Your task to perform on an android device: change notifications settings Image 0: 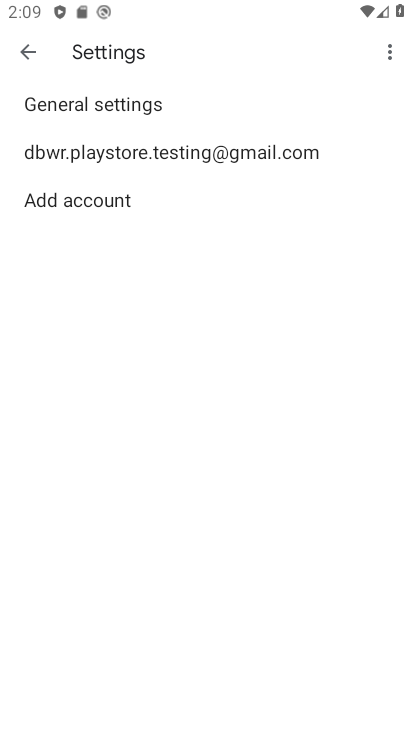
Step 0: press home button
Your task to perform on an android device: change notifications settings Image 1: 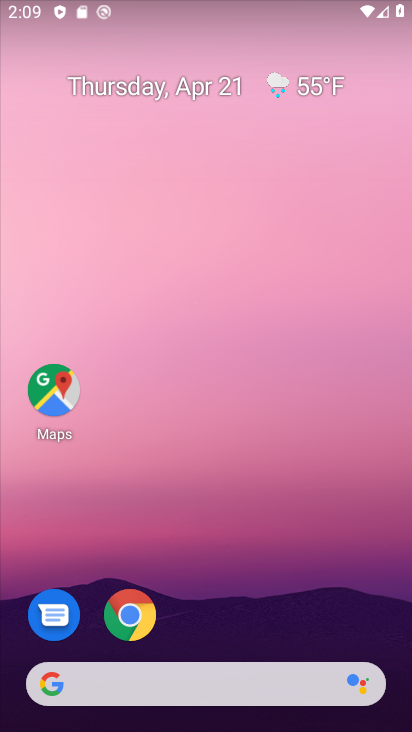
Step 1: drag from (180, 591) to (320, 13)
Your task to perform on an android device: change notifications settings Image 2: 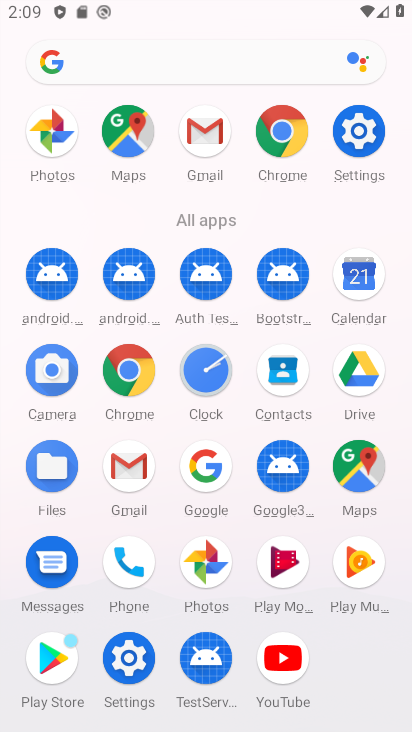
Step 2: click (365, 145)
Your task to perform on an android device: change notifications settings Image 3: 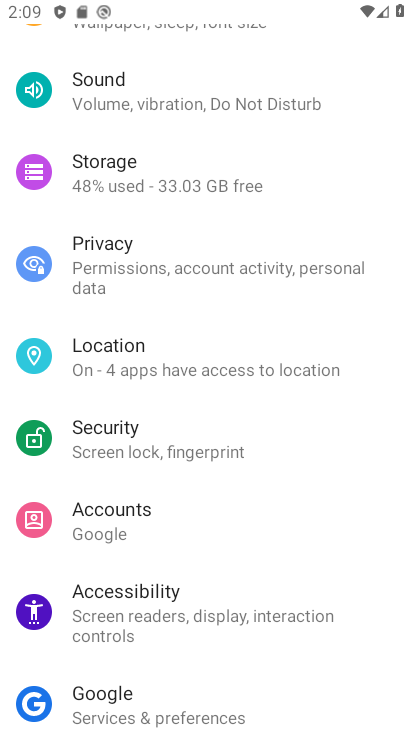
Step 3: drag from (177, 147) to (188, 534)
Your task to perform on an android device: change notifications settings Image 4: 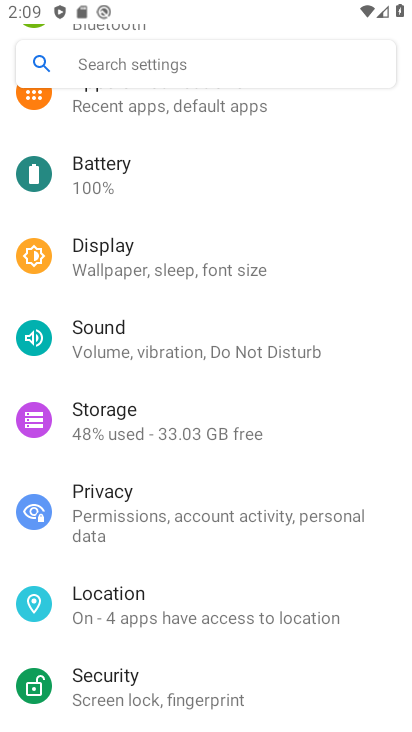
Step 4: drag from (184, 178) to (171, 466)
Your task to perform on an android device: change notifications settings Image 5: 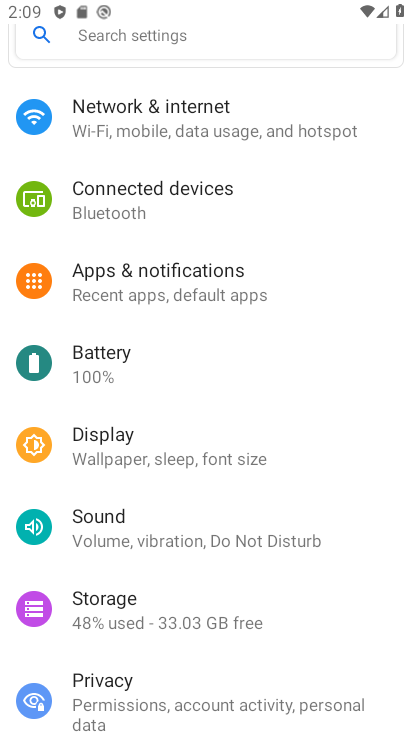
Step 5: click (149, 293)
Your task to perform on an android device: change notifications settings Image 6: 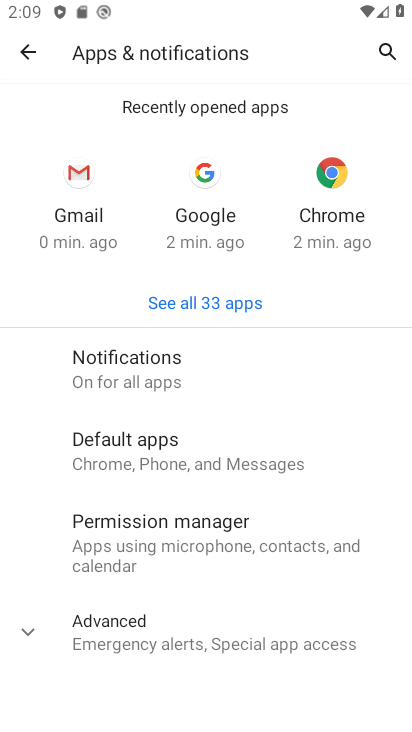
Step 6: click (153, 370)
Your task to perform on an android device: change notifications settings Image 7: 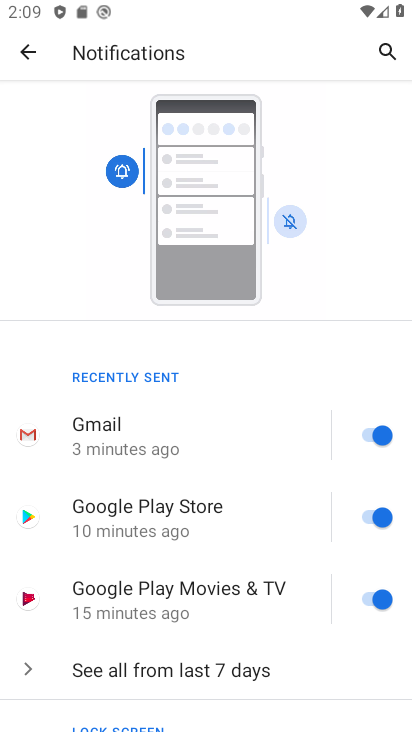
Step 7: click (364, 434)
Your task to perform on an android device: change notifications settings Image 8: 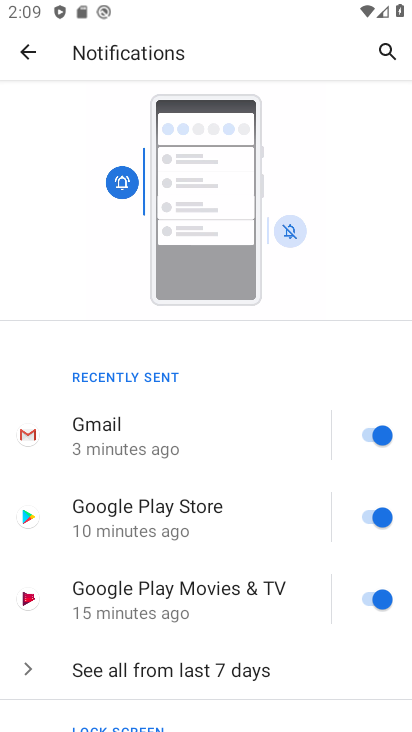
Step 8: click (364, 513)
Your task to perform on an android device: change notifications settings Image 9: 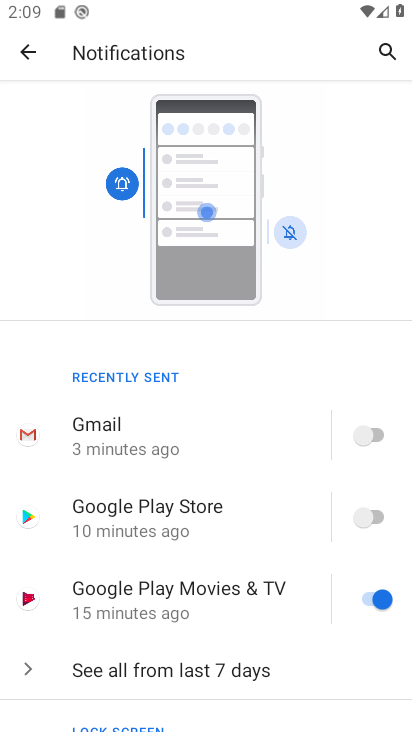
Step 9: click (372, 598)
Your task to perform on an android device: change notifications settings Image 10: 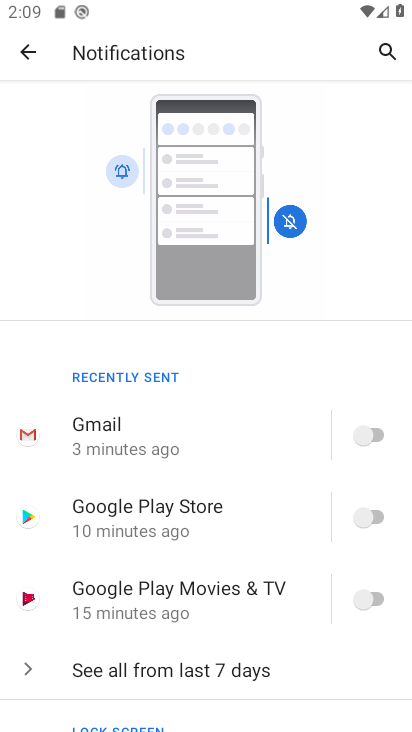
Step 10: task complete